Your task to perform on an android device: delete browsing data in the chrome app Image 0: 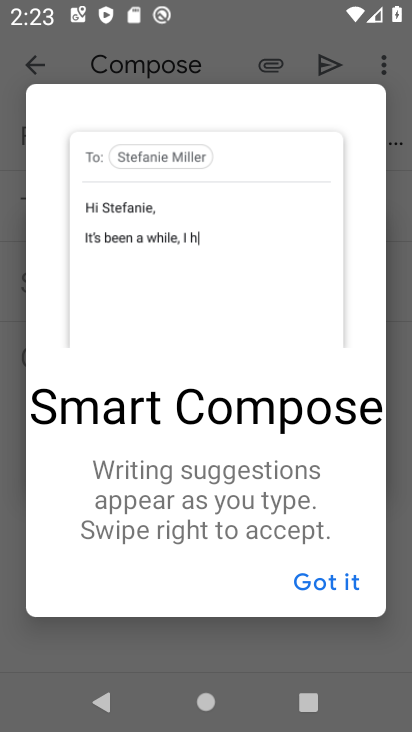
Step 0: press home button
Your task to perform on an android device: delete browsing data in the chrome app Image 1: 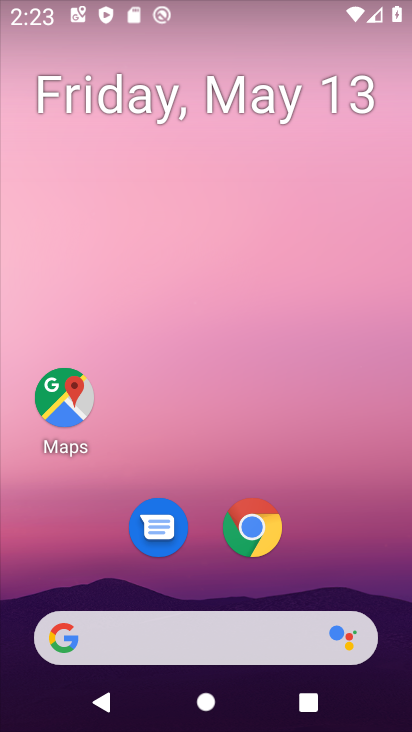
Step 1: click (251, 522)
Your task to perform on an android device: delete browsing data in the chrome app Image 2: 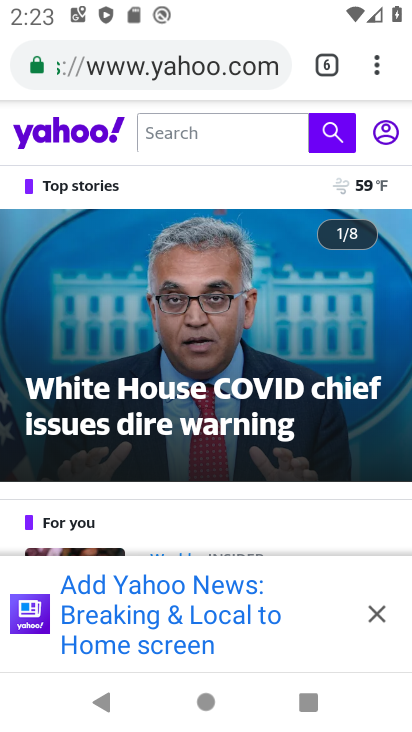
Step 2: click (360, 66)
Your task to perform on an android device: delete browsing data in the chrome app Image 3: 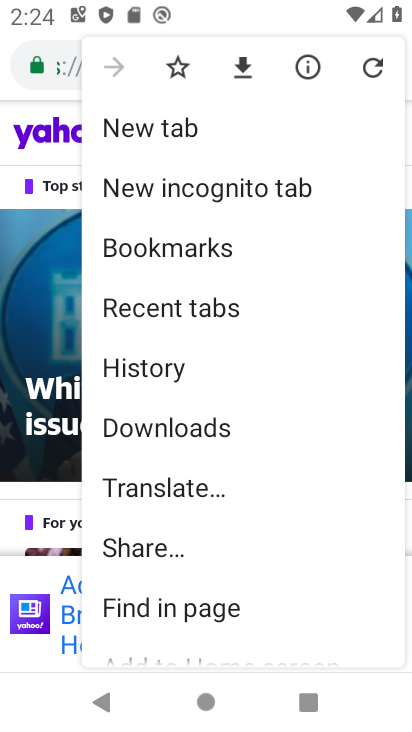
Step 3: click (138, 361)
Your task to perform on an android device: delete browsing data in the chrome app Image 4: 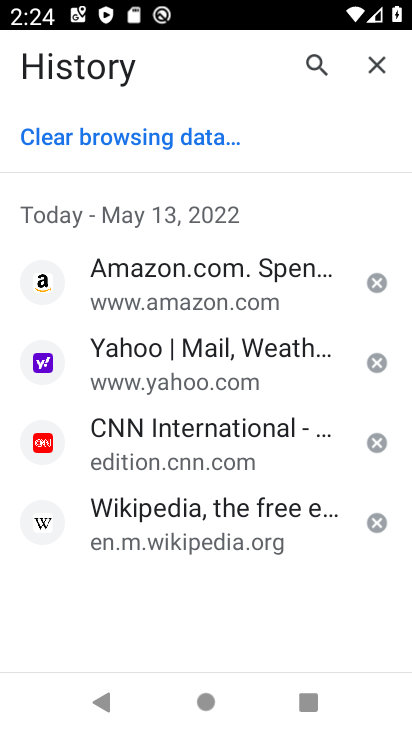
Step 4: click (147, 152)
Your task to perform on an android device: delete browsing data in the chrome app Image 5: 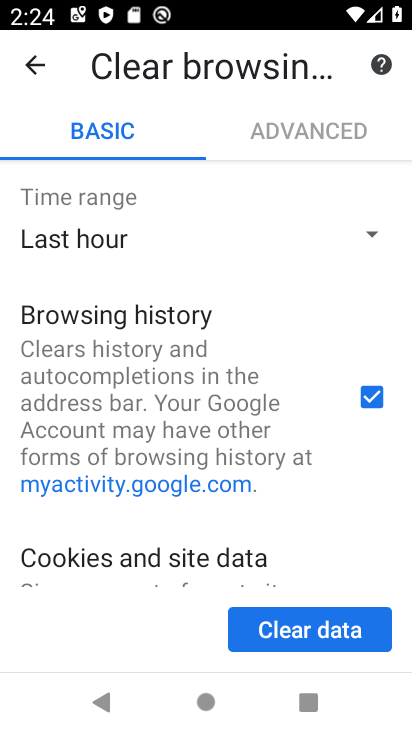
Step 5: click (301, 617)
Your task to perform on an android device: delete browsing data in the chrome app Image 6: 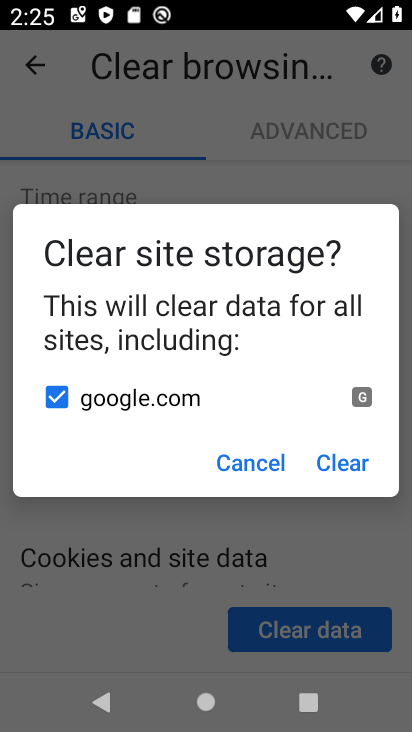
Step 6: click (339, 464)
Your task to perform on an android device: delete browsing data in the chrome app Image 7: 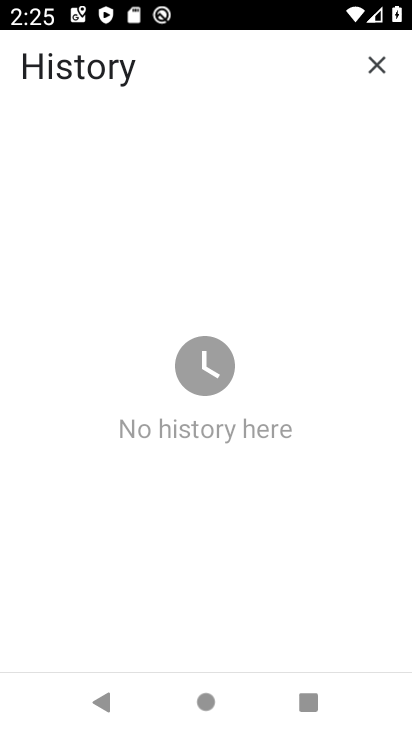
Step 7: task complete